Your task to perform on an android device: set the timer Image 0: 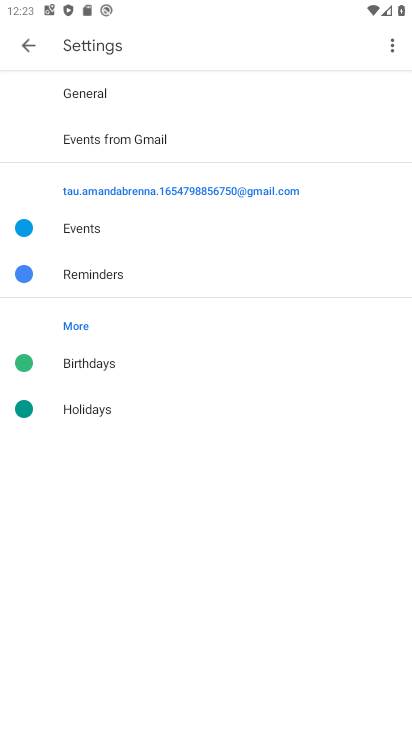
Step 0: press home button
Your task to perform on an android device: set the timer Image 1: 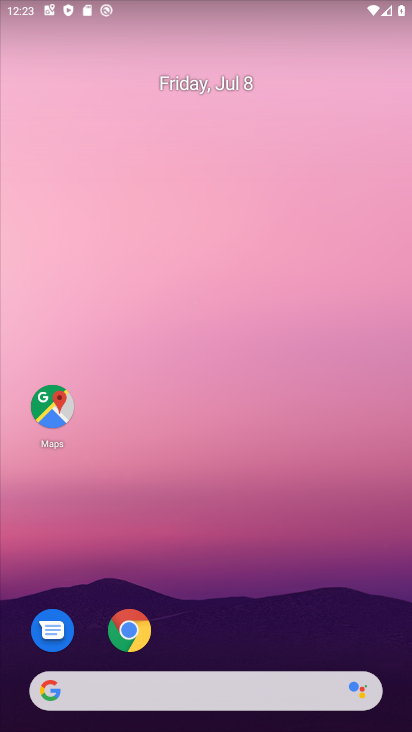
Step 1: drag from (403, 629) to (282, 47)
Your task to perform on an android device: set the timer Image 2: 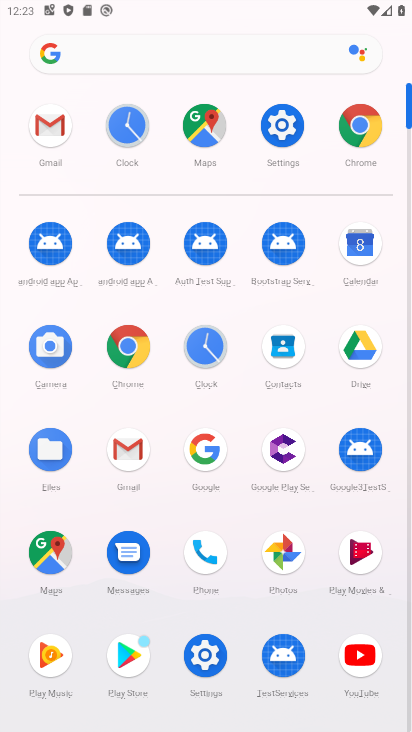
Step 2: click (203, 351)
Your task to perform on an android device: set the timer Image 3: 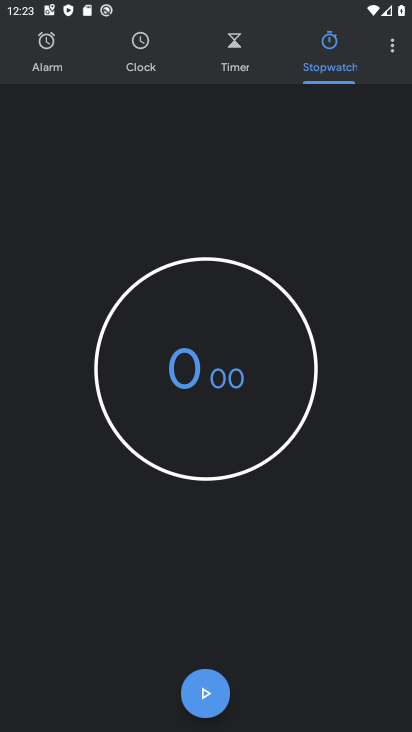
Step 3: click (221, 60)
Your task to perform on an android device: set the timer Image 4: 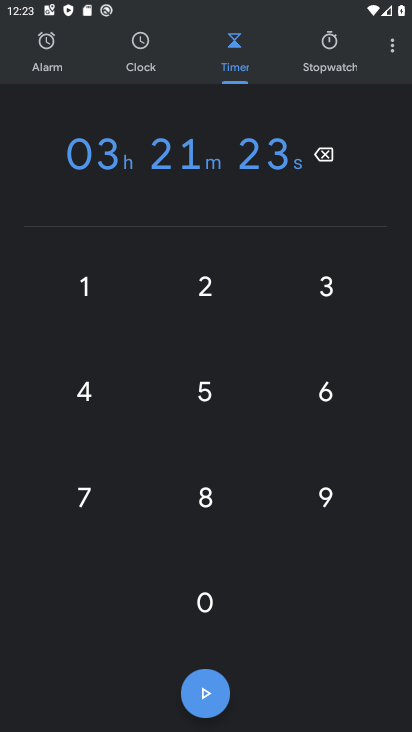
Step 4: task complete